Your task to perform on an android device: open a bookmark in the chrome app Image 0: 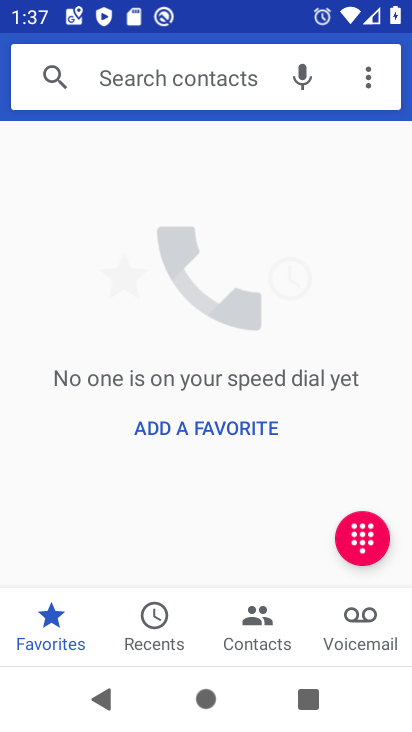
Step 0: press home button
Your task to perform on an android device: open a bookmark in the chrome app Image 1: 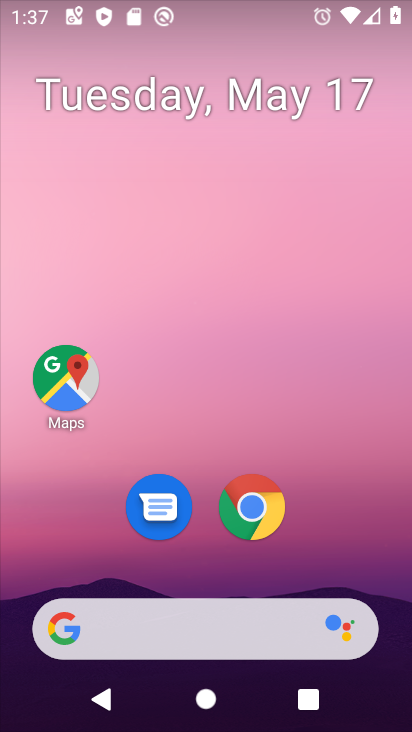
Step 1: drag from (312, 548) to (316, 251)
Your task to perform on an android device: open a bookmark in the chrome app Image 2: 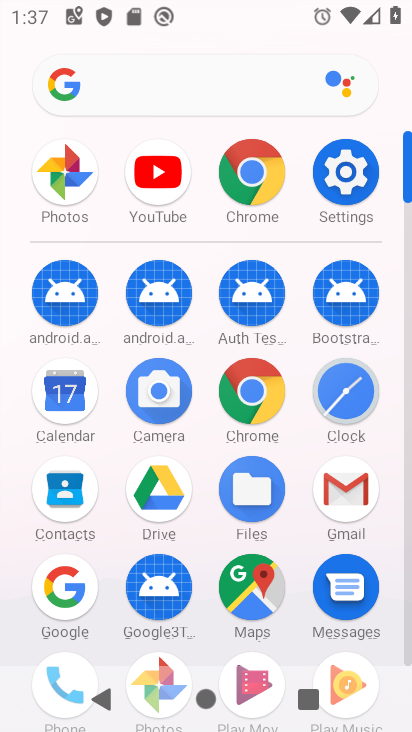
Step 2: click (335, 182)
Your task to perform on an android device: open a bookmark in the chrome app Image 3: 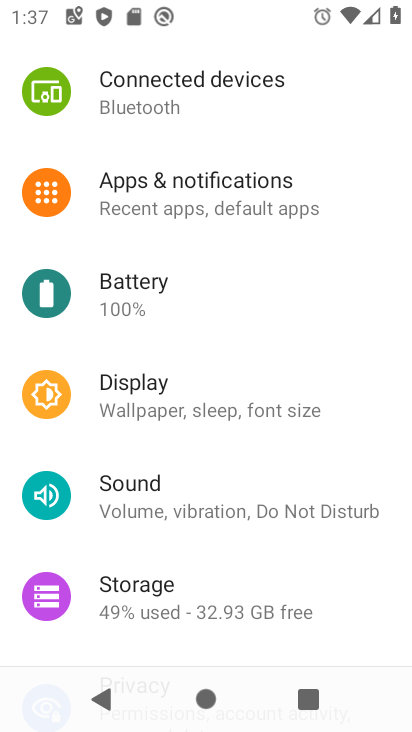
Step 3: press home button
Your task to perform on an android device: open a bookmark in the chrome app Image 4: 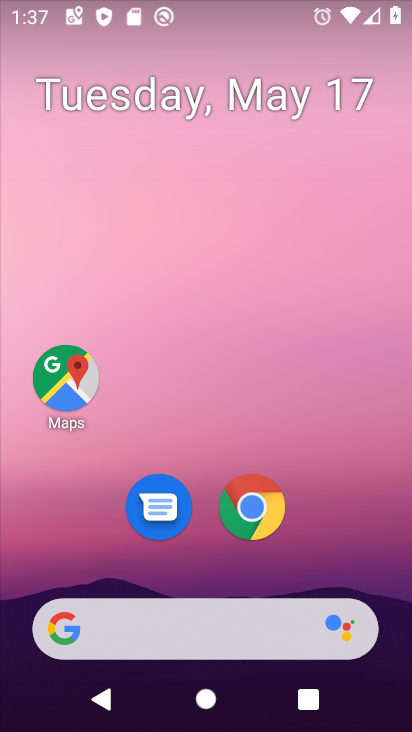
Step 4: click (250, 486)
Your task to perform on an android device: open a bookmark in the chrome app Image 5: 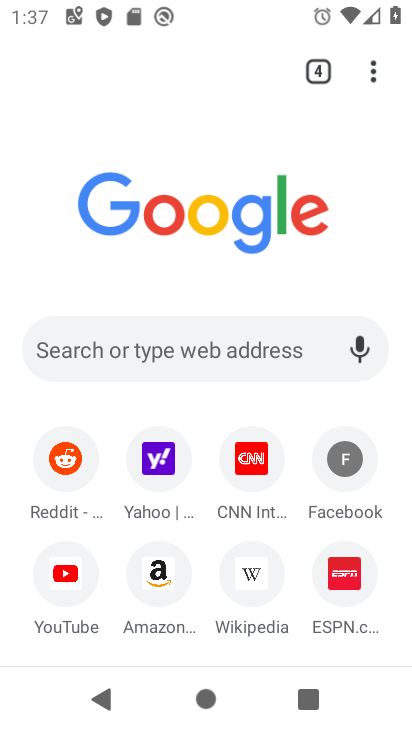
Step 5: click (369, 71)
Your task to perform on an android device: open a bookmark in the chrome app Image 6: 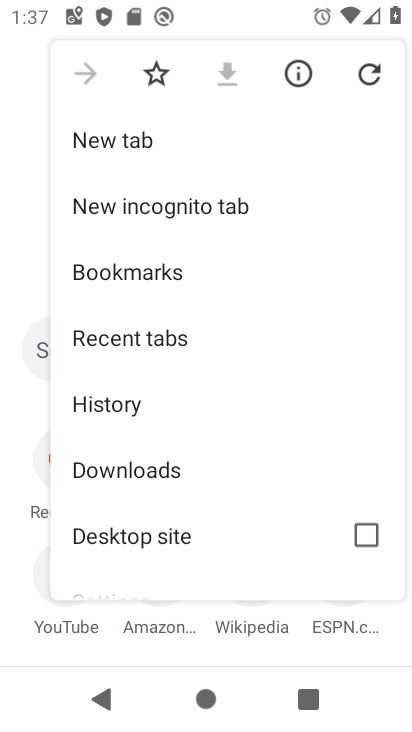
Step 6: click (147, 296)
Your task to perform on an android device: open a bookmark in the chrome app Image 7: 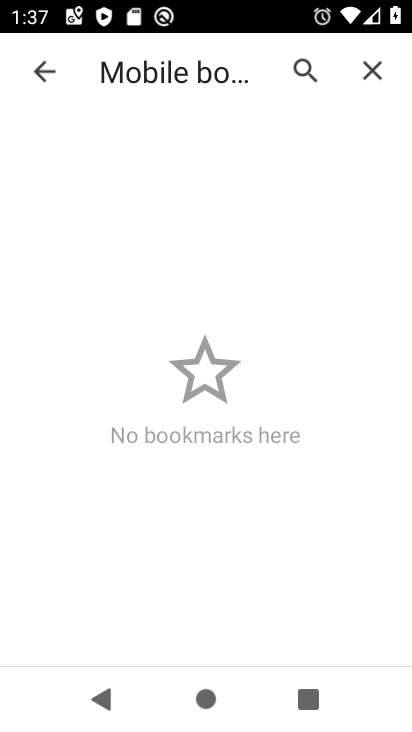
Step 7: task complete